Your task to perform on an android device: Open the calendar app, open the side menu, and click the "Day" option Image 0: 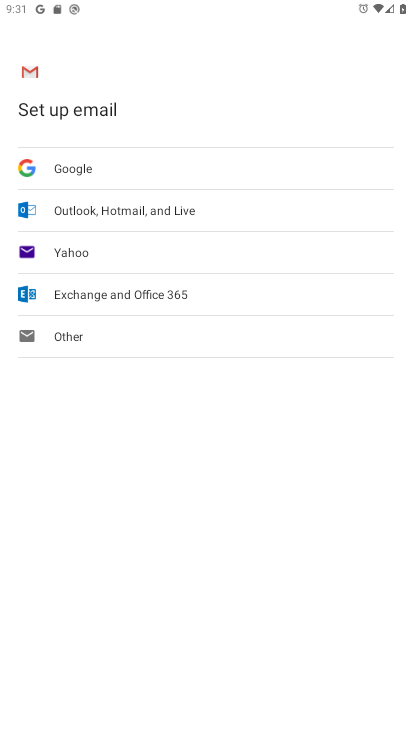
Step 0: press home button
Your task to perform on an android device: Open the calendar app, open the side menu, and click the "Day" option Image 1: 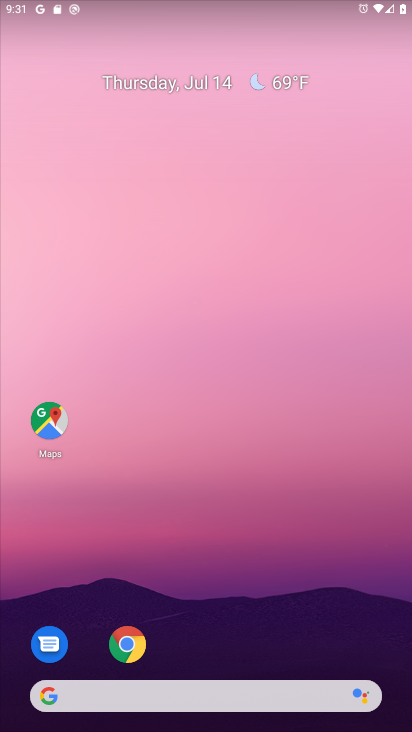
Step 1: click (151, 84)
Your task to perform on an android device: Open the calendar app, open the side menu, and click the "Day" option Image 2: 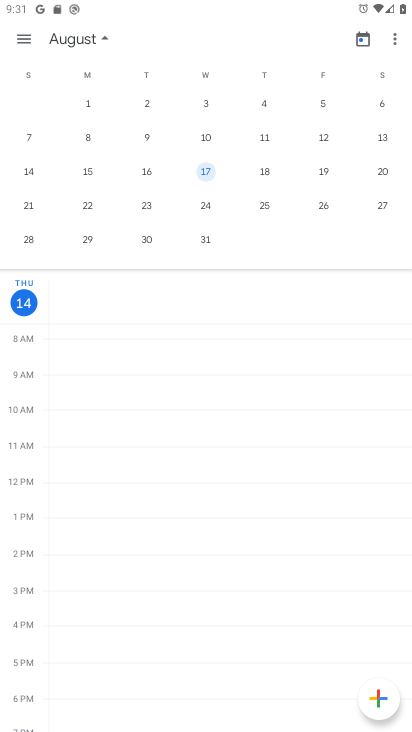
Step 2: click (33, 40)
Your task to perform on an android device: Open the calendar app, open the side menu, and click the "Day" option Image 3: 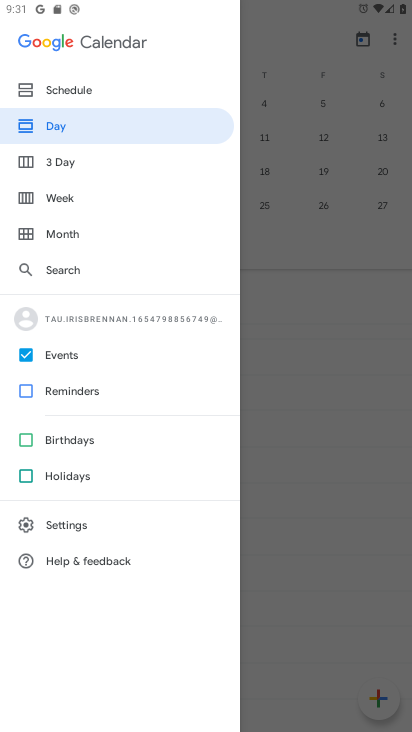
Step 3: click (90, 158)
Your task to perform on an android device: Open the calendar app, open the side menu, and click the "Day" option Image 4: 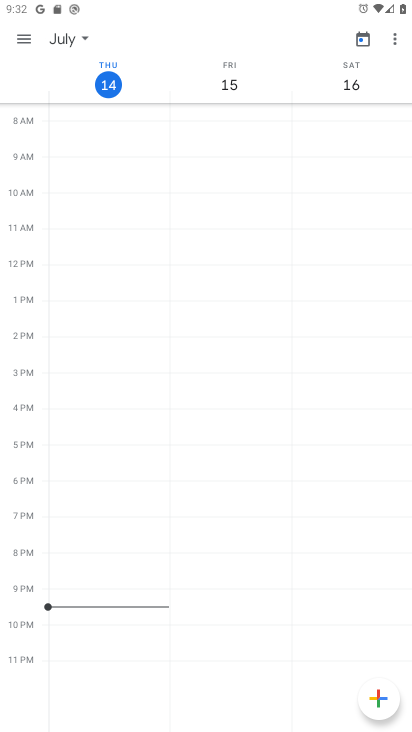
Step 4: task complete